Your task to perform on an android device: uninstall "Microsoft Excel" Image 0: 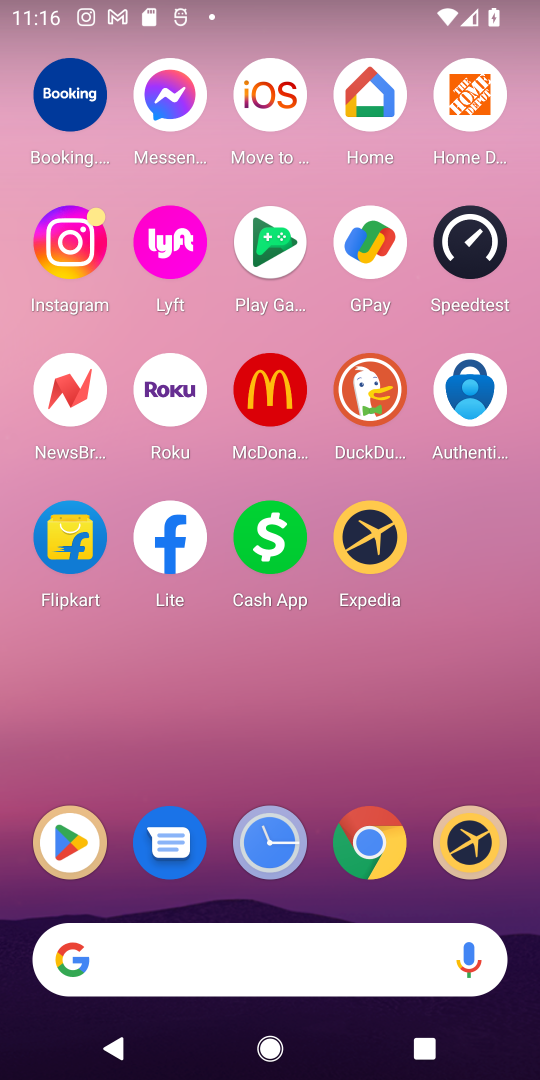
Step 0: click (73, 838)
Your task to perform on an android device: uninstall "Microsoft Excel" Image 1: 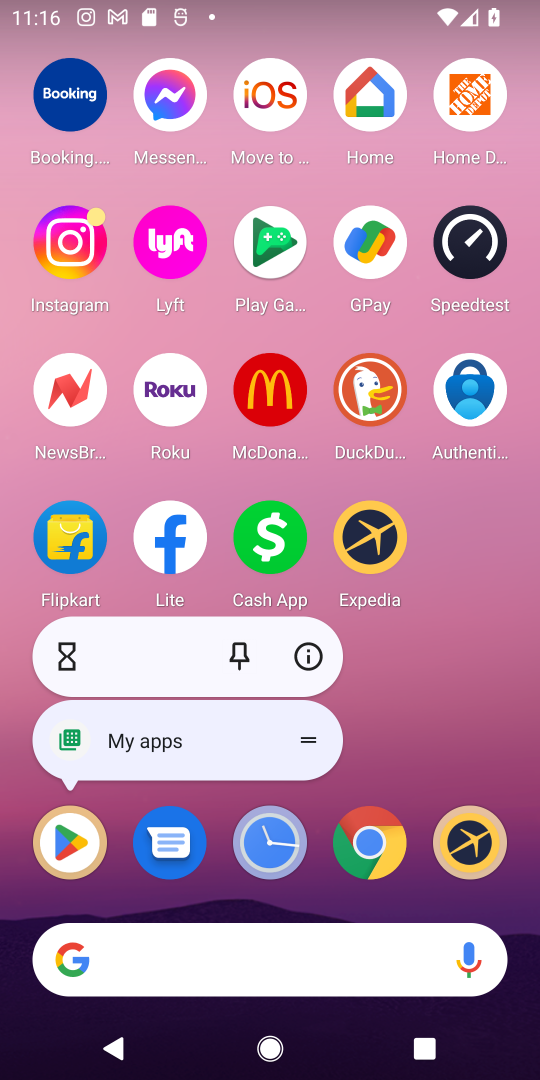
Step 1: click (66, 837)
Your task to perform on an android device: uninstall "Microsoft Excel" Image 2: 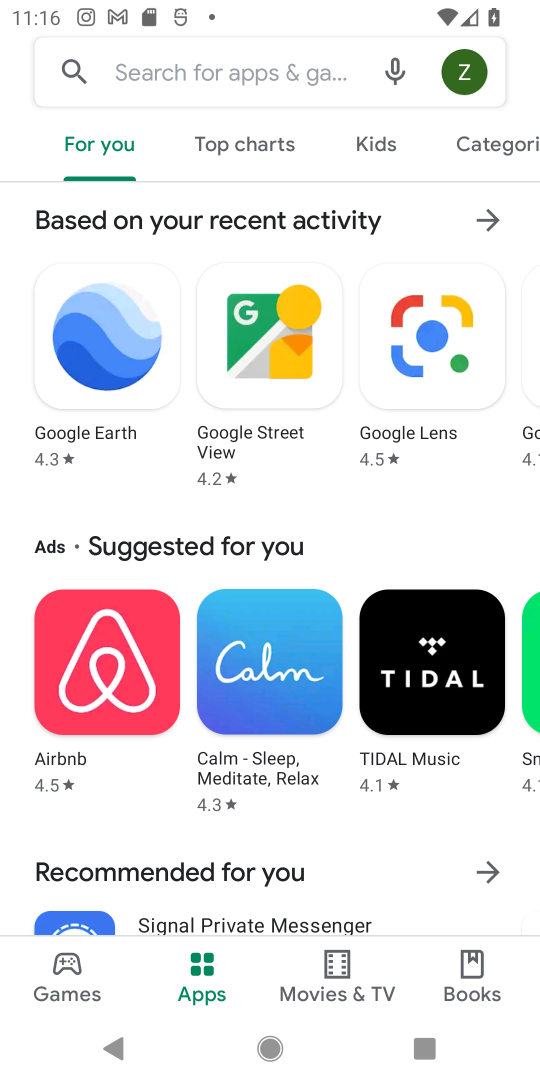
Step 2: click (321, 78)
Your task to perform on an android device: uninstall "Microsoft Excel" Image 3: 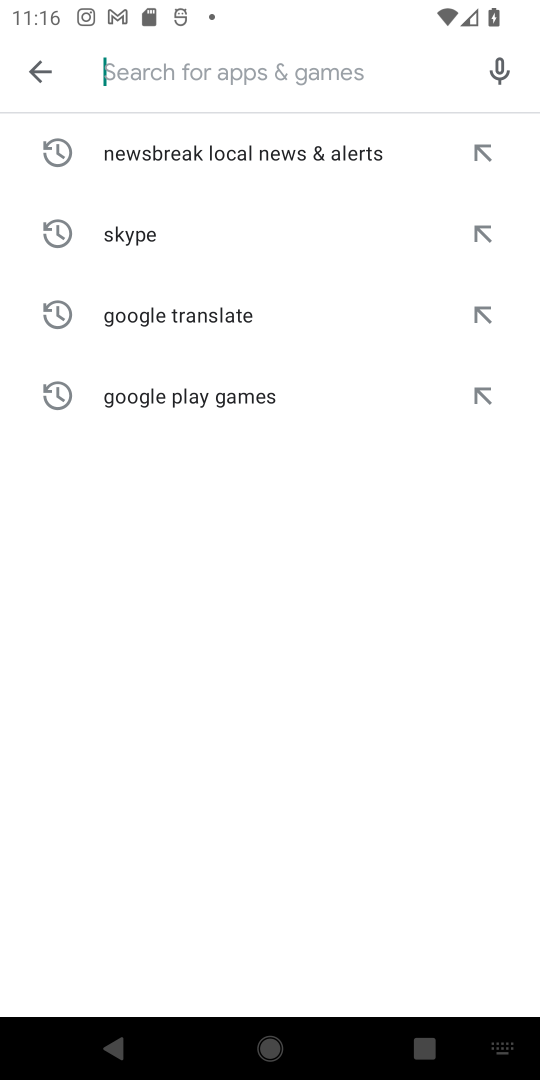
Step 3: click (228, 63)
Your task to perform on an android device: uninstall "Microsoft Excel" Image 4: 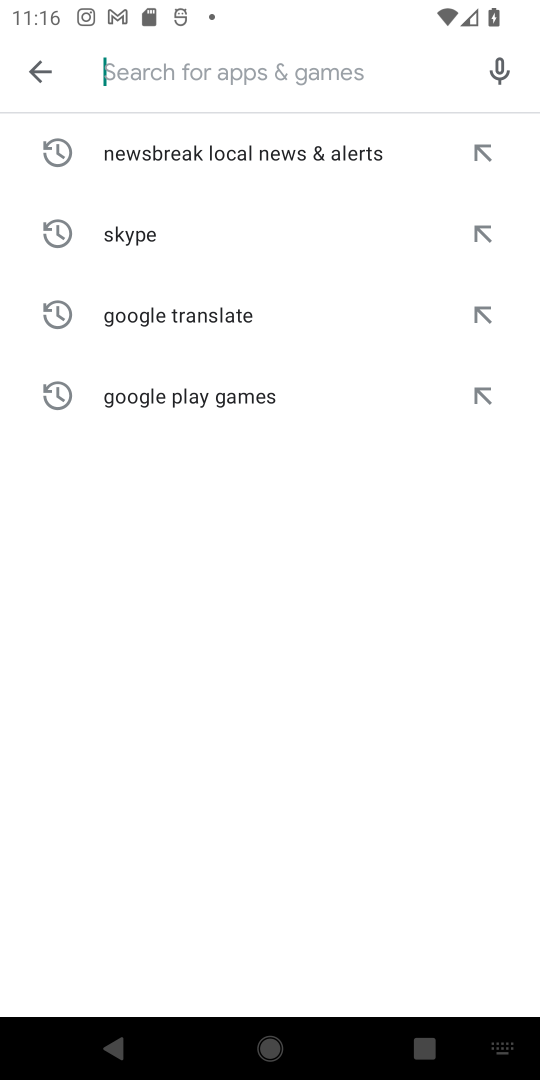
Step 4: type "Microsoft Excel"
Your task to perform on an android device: uninstall "Microsoft Excel" Image 5: 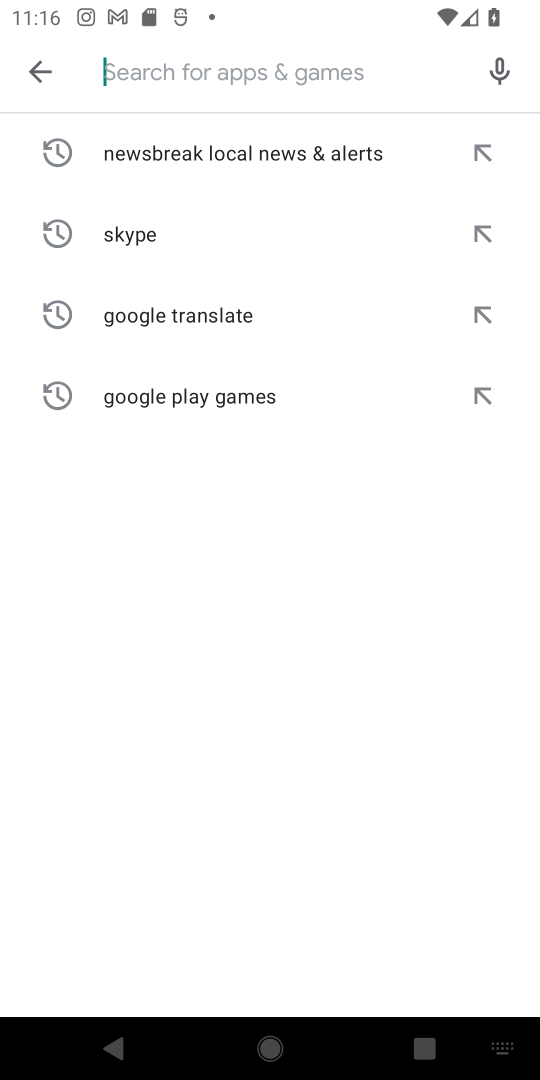
Step 5: click (276, 575)
Your task to perform on an android device: uninstall "Microsoft Excel" Image 6: 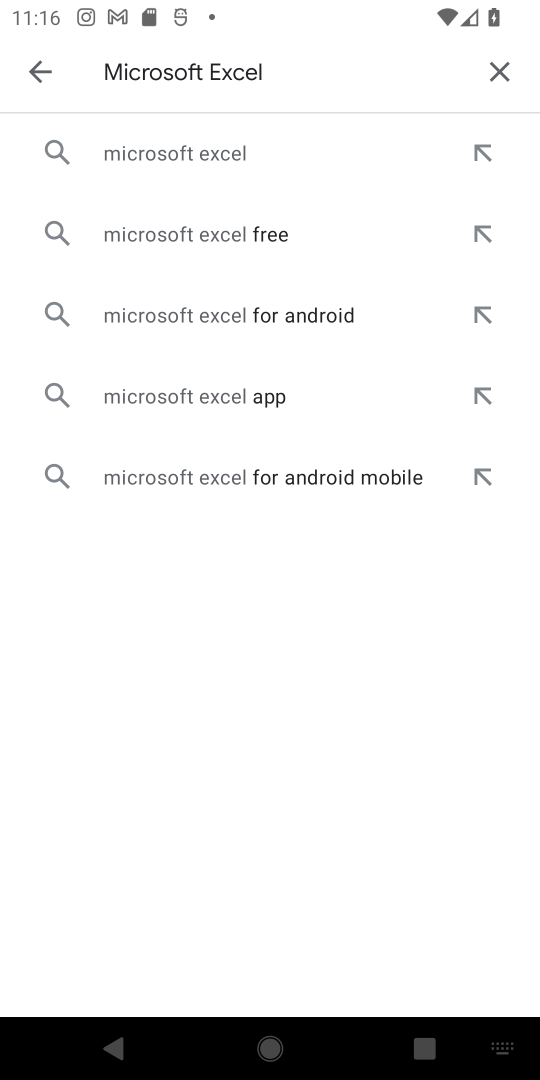
Step 6: click (171, 146)
Your task to perform on an android device: uninstall "Microsoft Excel" Image 7: 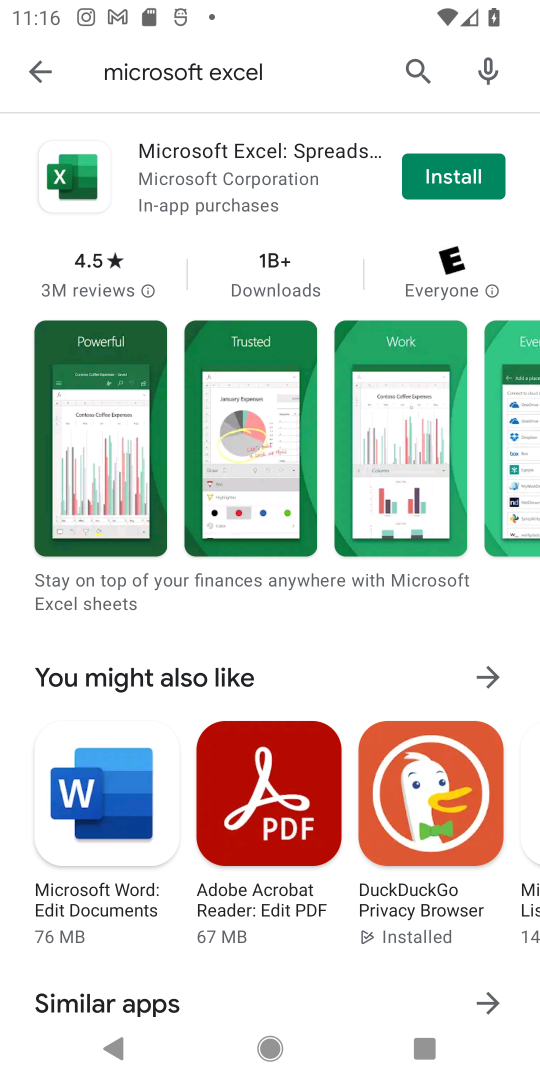
Step 7: task complete